Your task to perform on an android device: see sites visited before in the chrome app Image 0: 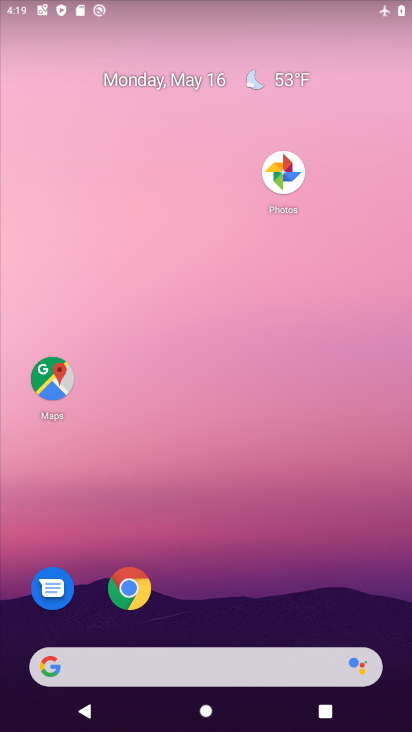
Step 0: click (127, 590)
Your task to perform on an android device: see sites visited before in the chrome app Image 1: 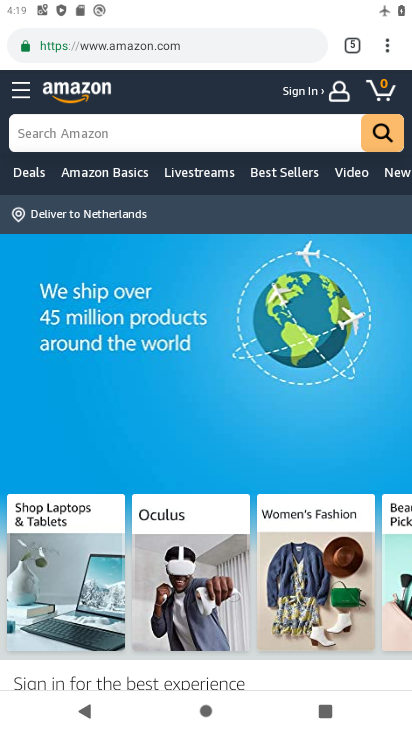
Step 1: click (381, 46)
Your task to perform on an android device: see sites visited before in the chrome app Image 2: 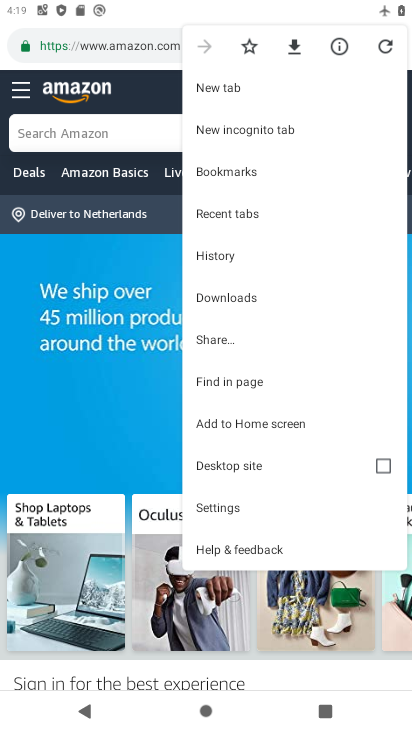
Step 2: click (249, 221)
Your task to perform on an android device: see sites visited before in the chrome app Image 3: 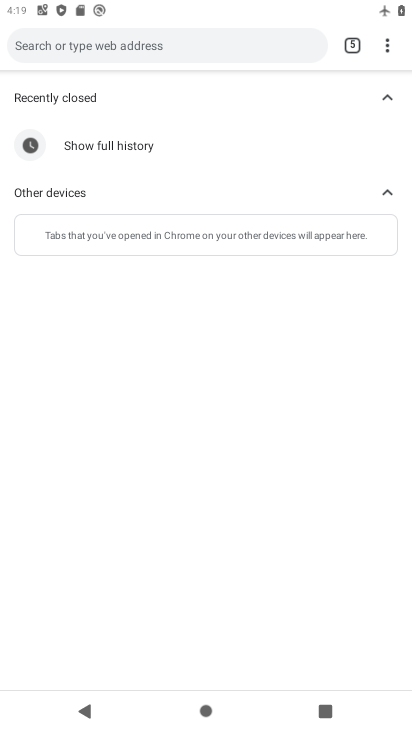
Step 3: task complete